Your task to perform on an android device: visit the assistant section in the google photos Image 0: 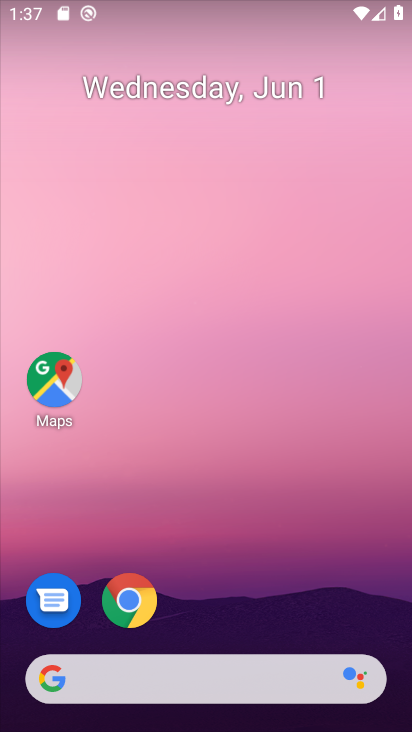
Step 0: drag from (198, 664) to (324, 141)
Your task to perform on an android device: visit the assistant section in the google photos Image 1: 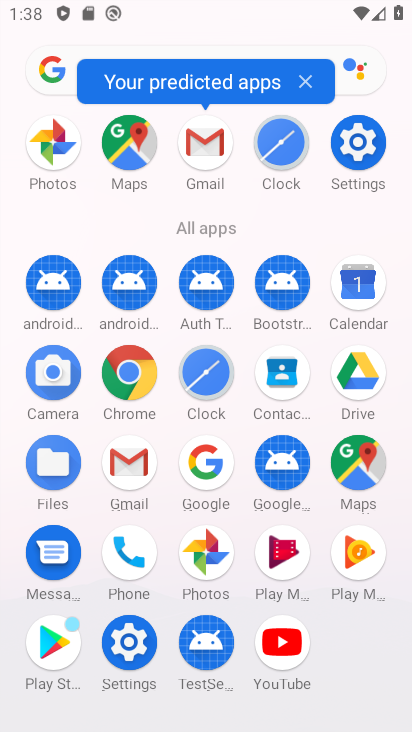
Step 1: click (207, 577)
Your task to perform on an android device: visit the assistant section in the google photos Image 2: 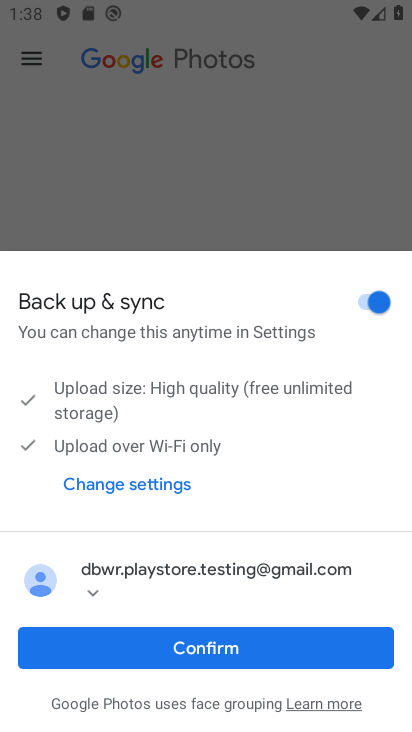
Step 2: click (223, 644)
Your task to perform on an android device: visit the assistant section in the google photos Image 3: 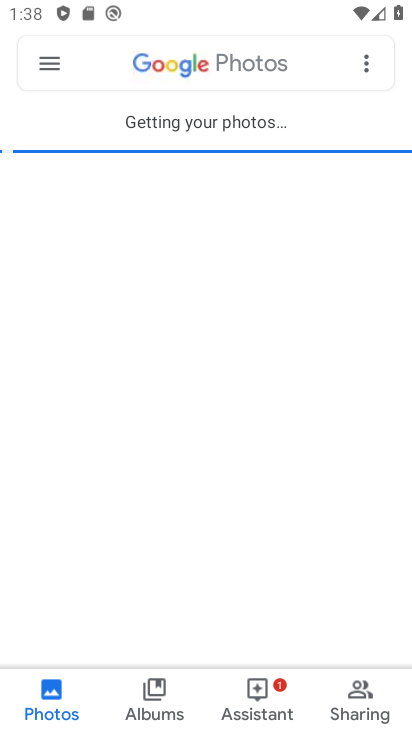
Step 3: click (292, 704)
Your task to perform on an android device: visit the assistant section in the google photos Image 4: 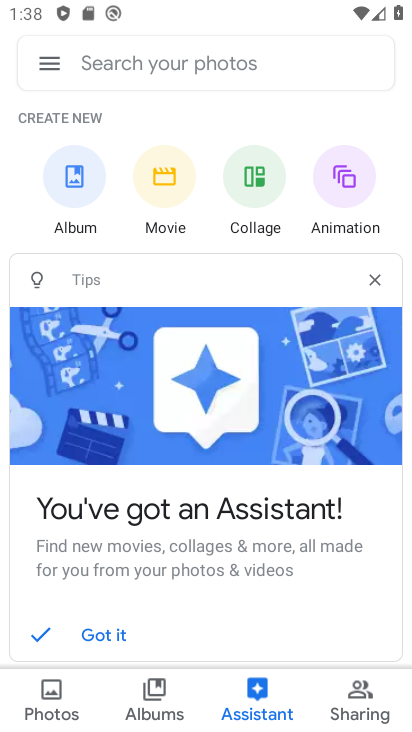
Step 4: task complete